Your task to perform on an android device: Open Google Chrome and click the shortcut for Amazon.com Image 0: 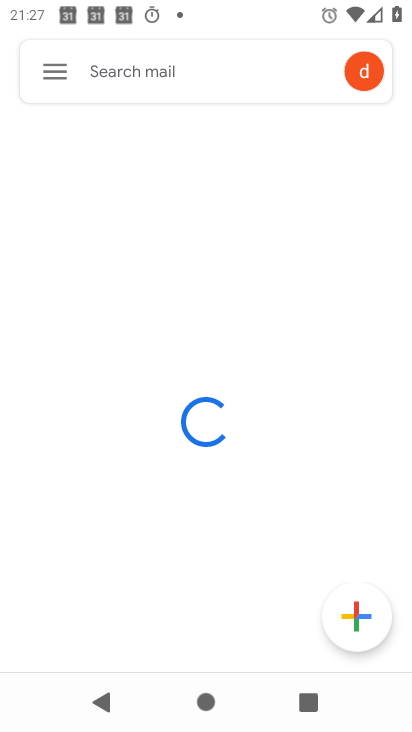
Step 0: press home button
Your task to perform on an android device: Open Google Chrome and click the shortcut for Amazon.com Image 1: 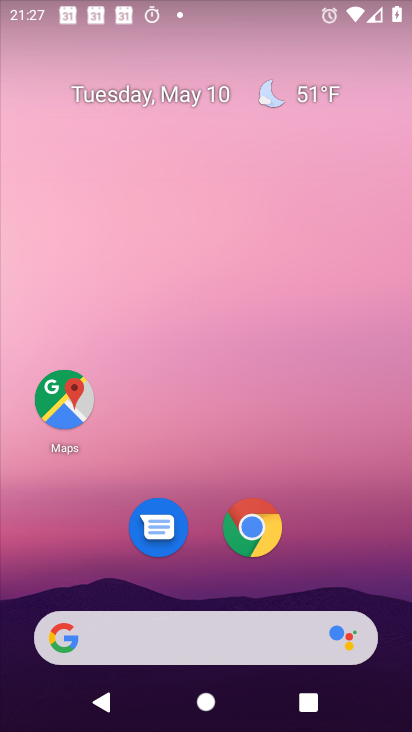
Step 1: click (255, 524)
Your task to perform on an android device: Open Google Chrome and click the shortcut for Amazon.com Image 2: 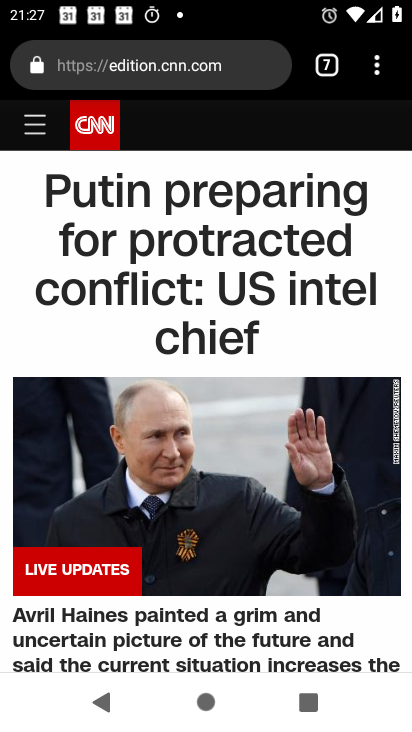
Step 2: click (323, 70)
Your task to perform on an android device: Open Google Chrome and click the shortcut for Amazon.com Image 3: 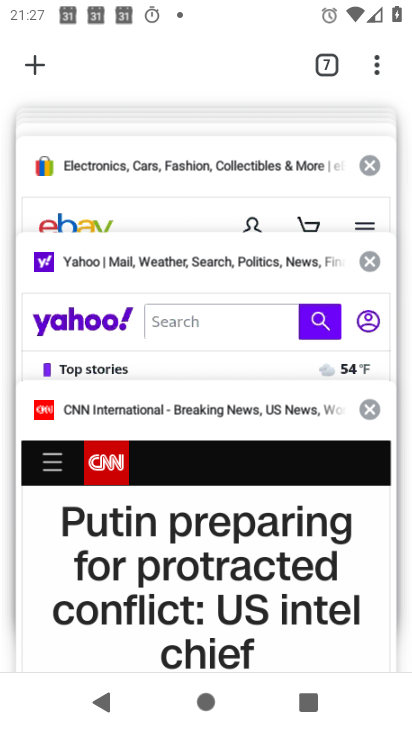
Step 3: click (44, 56)
Your task to perform on an android device: Open Google Chrome and click the shortcut for Amazon.com Image 4: 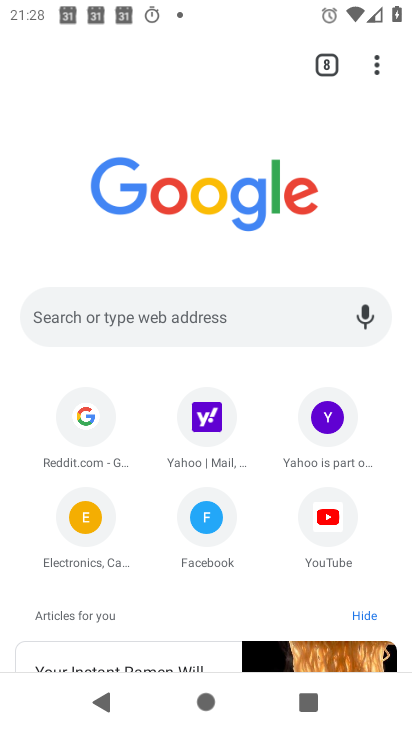
Step 4: click (221, 308)
Your task to perform on an android device: Open Google Chrome and click the shortcut for Amazon.com Image 5: 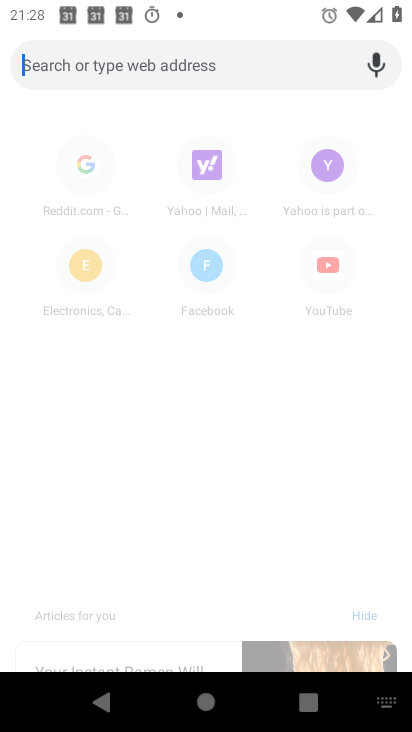
Step 5: type "amazon"
Your task to perform on an android device: Open Google Chrome and click the shortcut for Amazon.com Image 6: 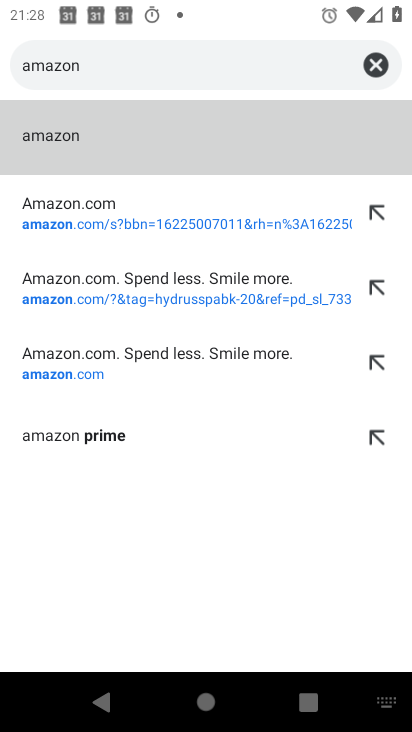
Step 6: type ""
Your task to perform on an android device: Open Google Chrome and click the shortcut for Amazon.com Image 7: 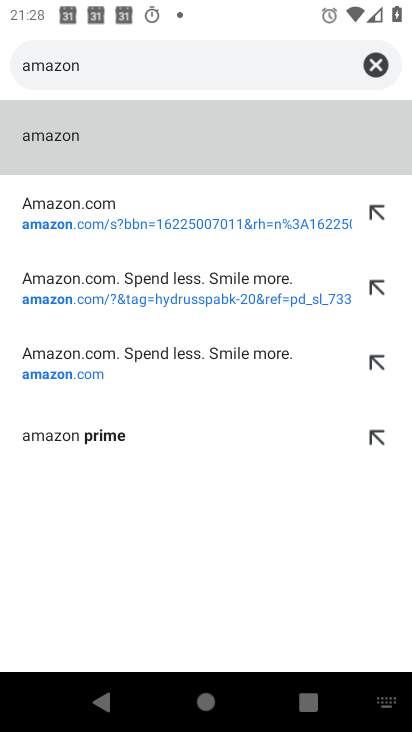
Step 7: click (206, 238)
Your task to perform on an android device: Open Google Chrome and click the shortcut for Amazon.com Image 8: 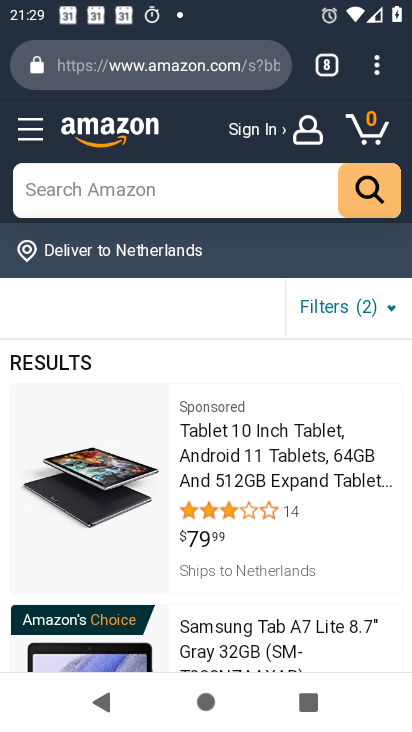
Step 8: task complete